Your task to perform on an android device: uninstall "Calculator" Image 0: 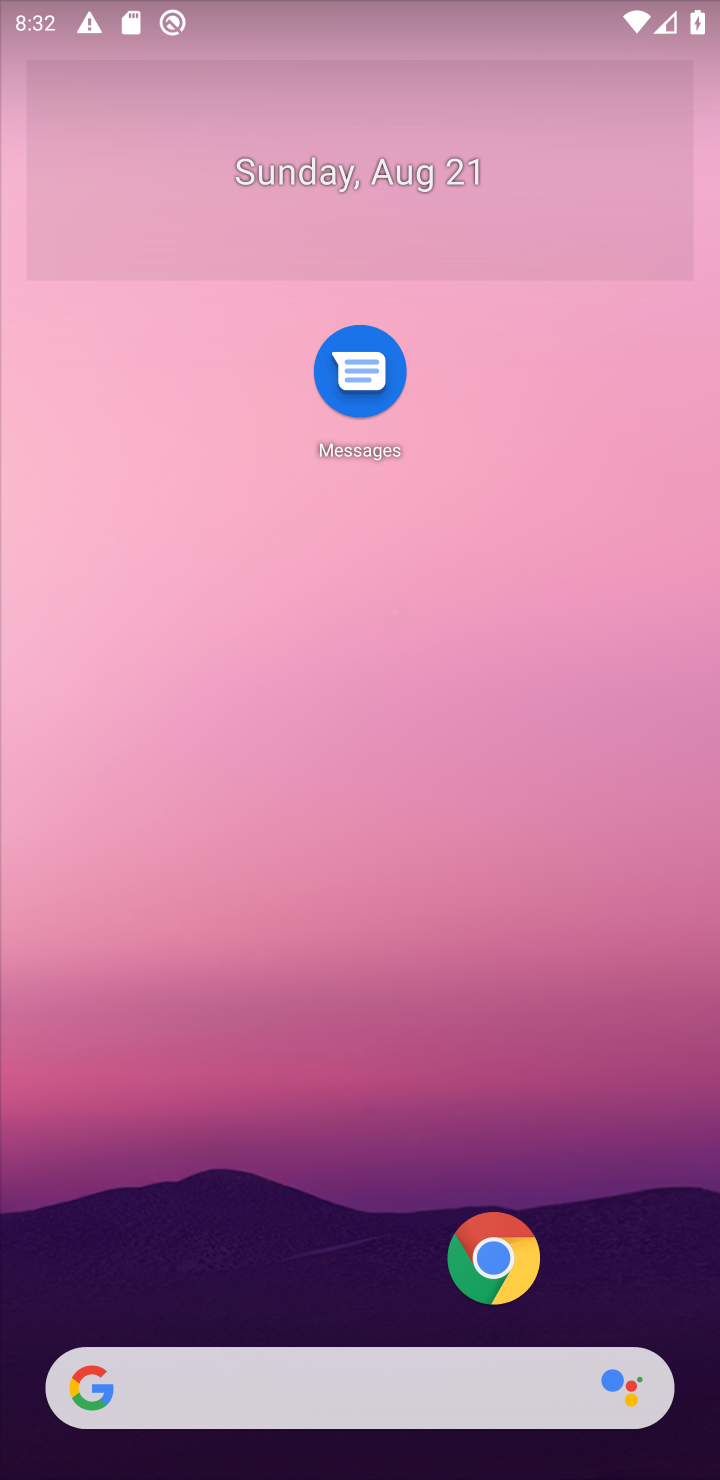
Step 0: drag from (484, 900) to (12, 769)
Your task to perform on an android device: uninstall "Calculator" Image 1: 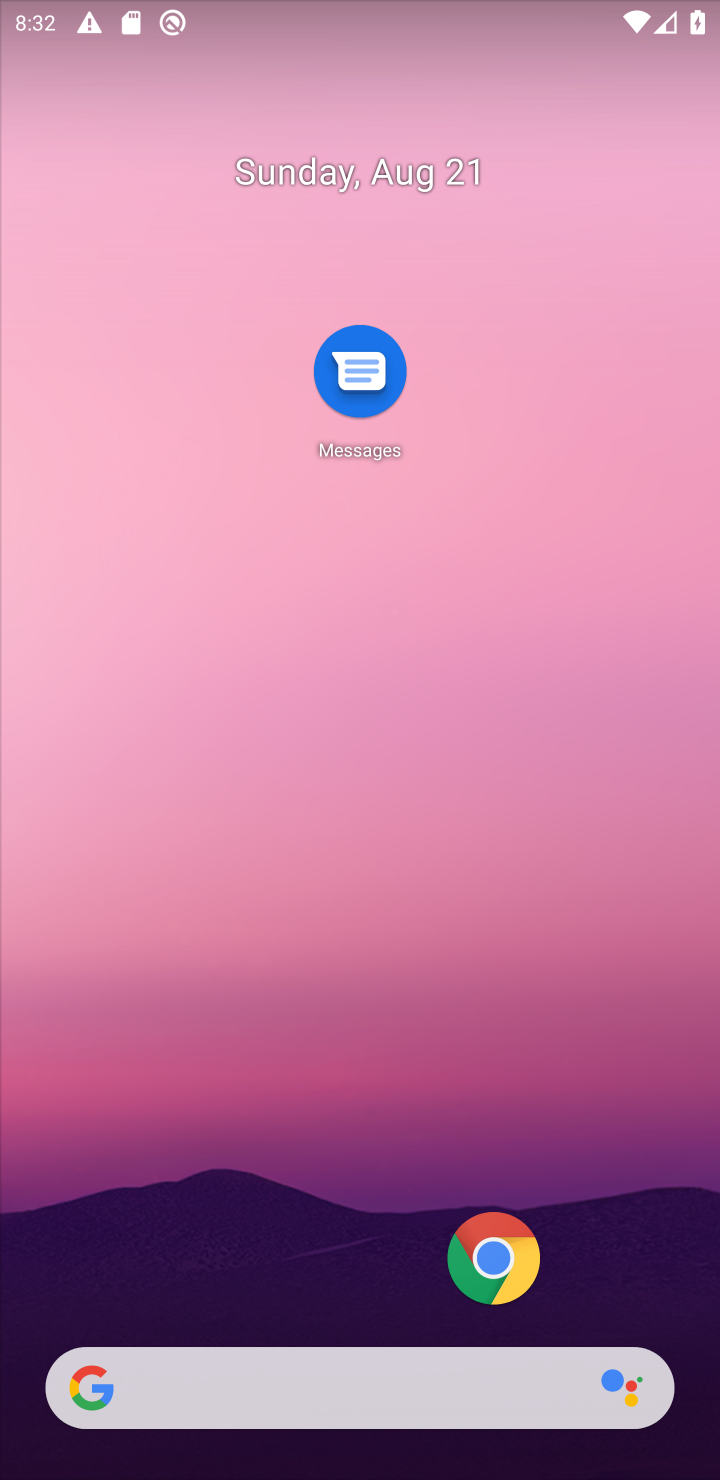
Step 1: drag from (294, 1067) to (413, 0)
Your task to perform on an android device: uninstall "Calculator" Image 2: 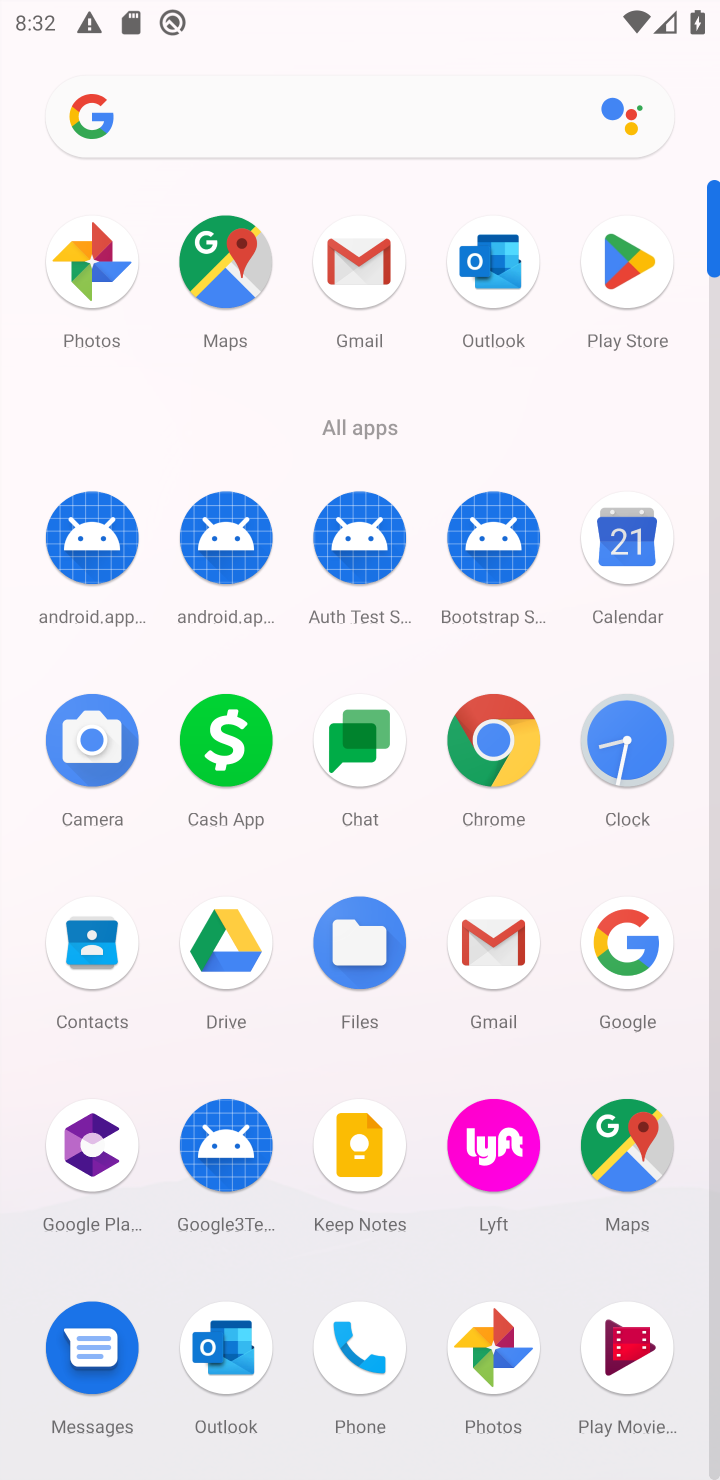
Step 2: click (626, 268)
Your task to perform on an android device: uninstall "Calculator" Image 3: 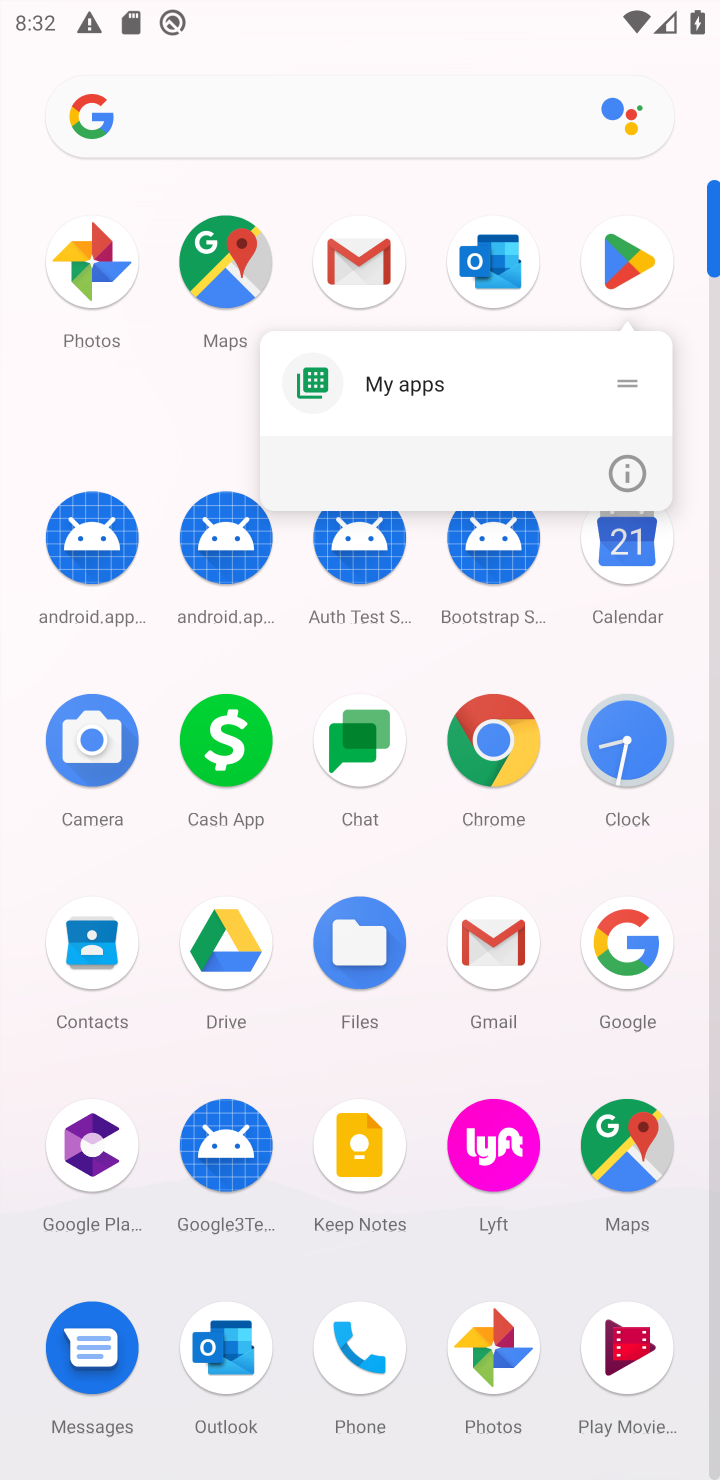
Step 3: click (626, 265)
Your task to perform on an android device: uninstall "Calculator" Image 4: 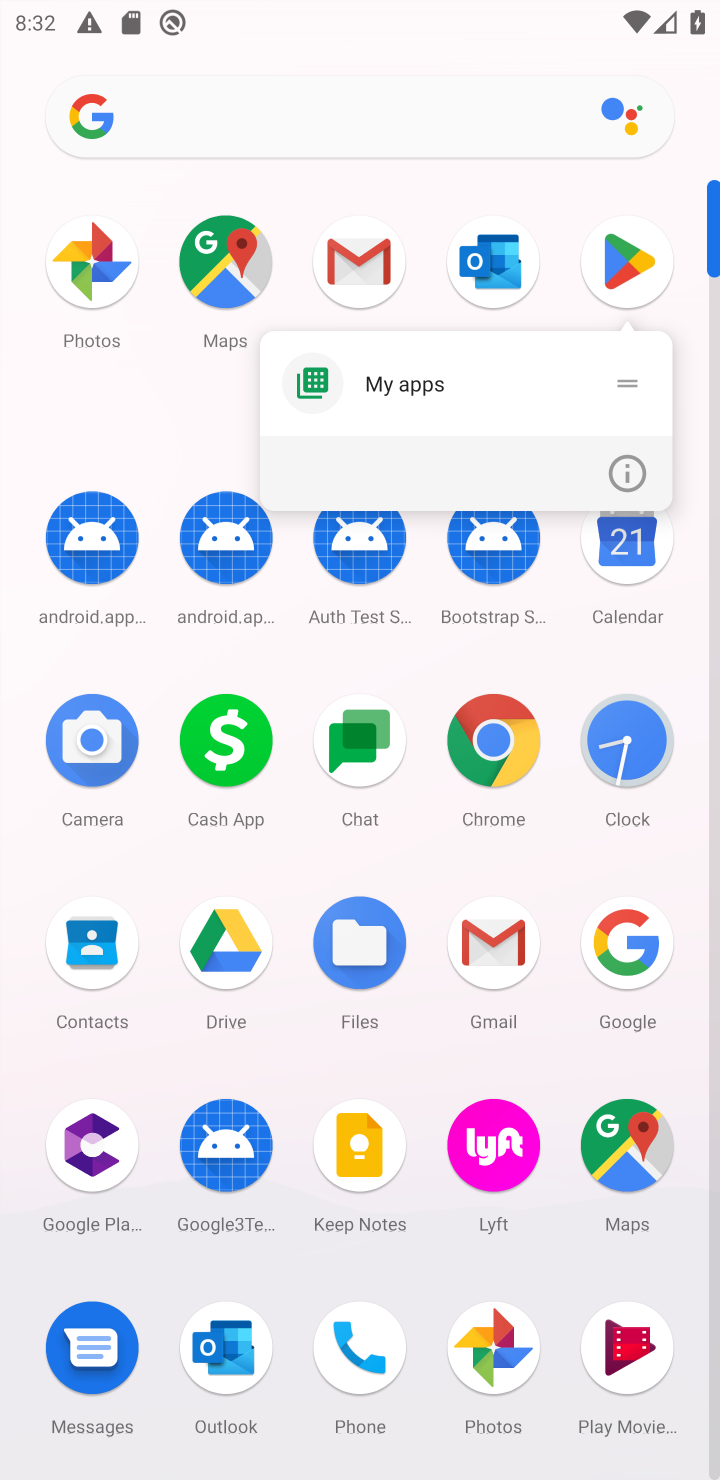
Step 4: click (626, 265)
Your task to perform on an android device: uninstall "Calculator" Image 5: 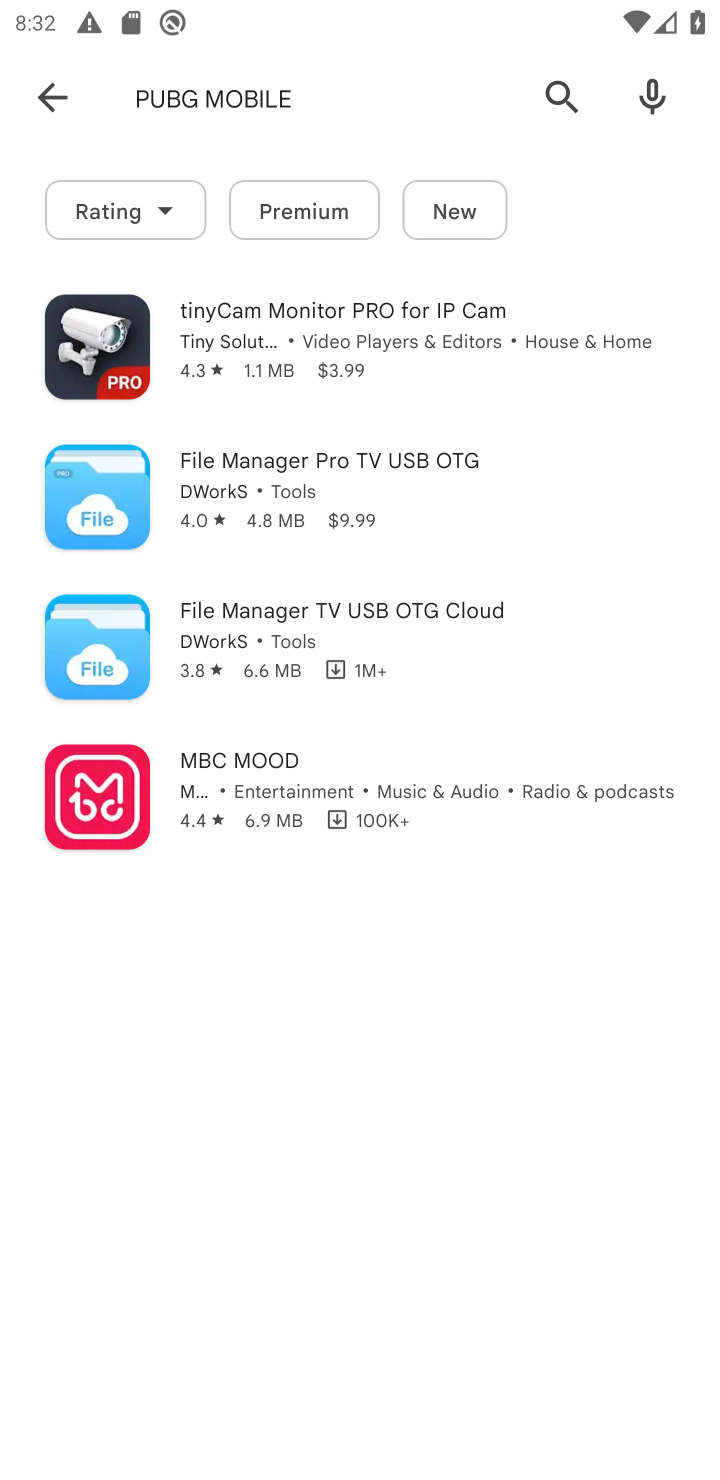
Step 5: press back button
Your task to perform on an android device: uninstall "Calculator" Image 6: 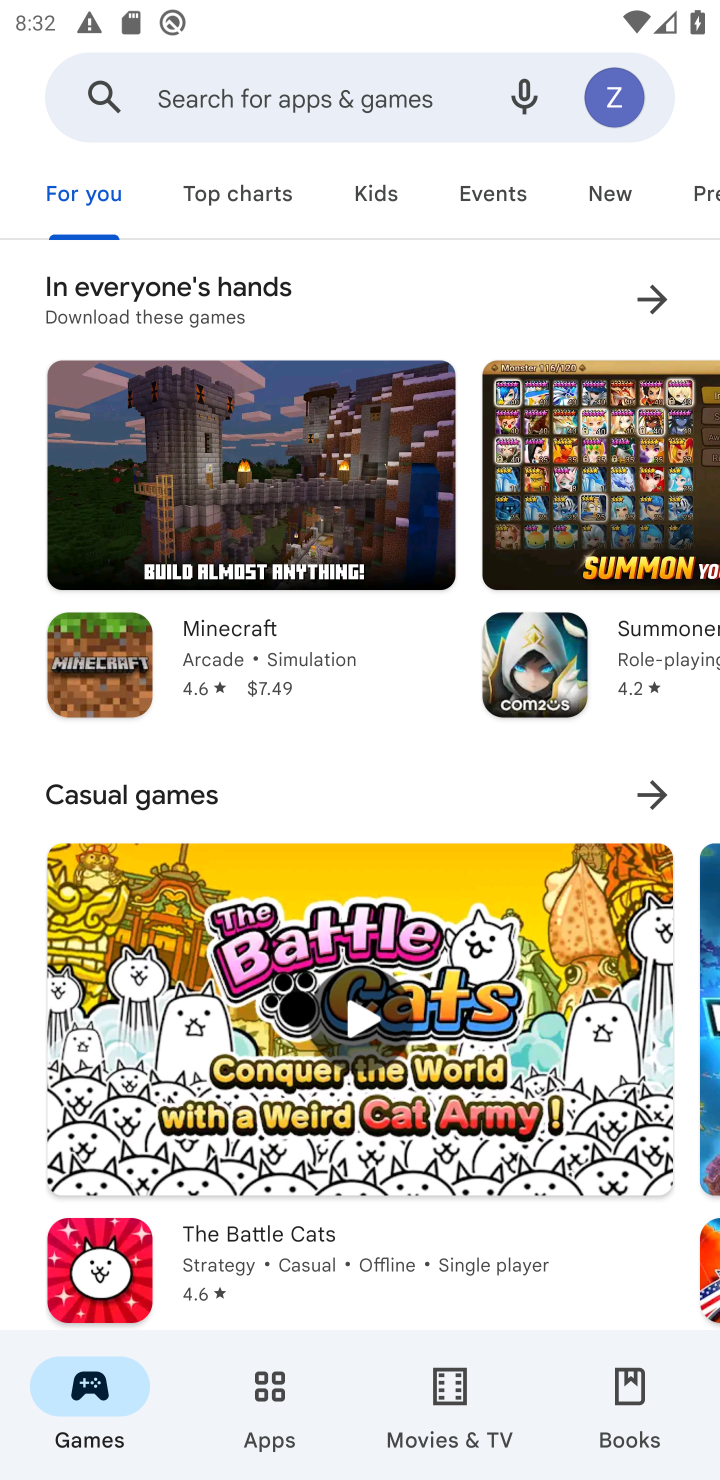
Step 6: click (342, 126)
Your task to perform on an android device: uninstall "Calculator" Image 7: 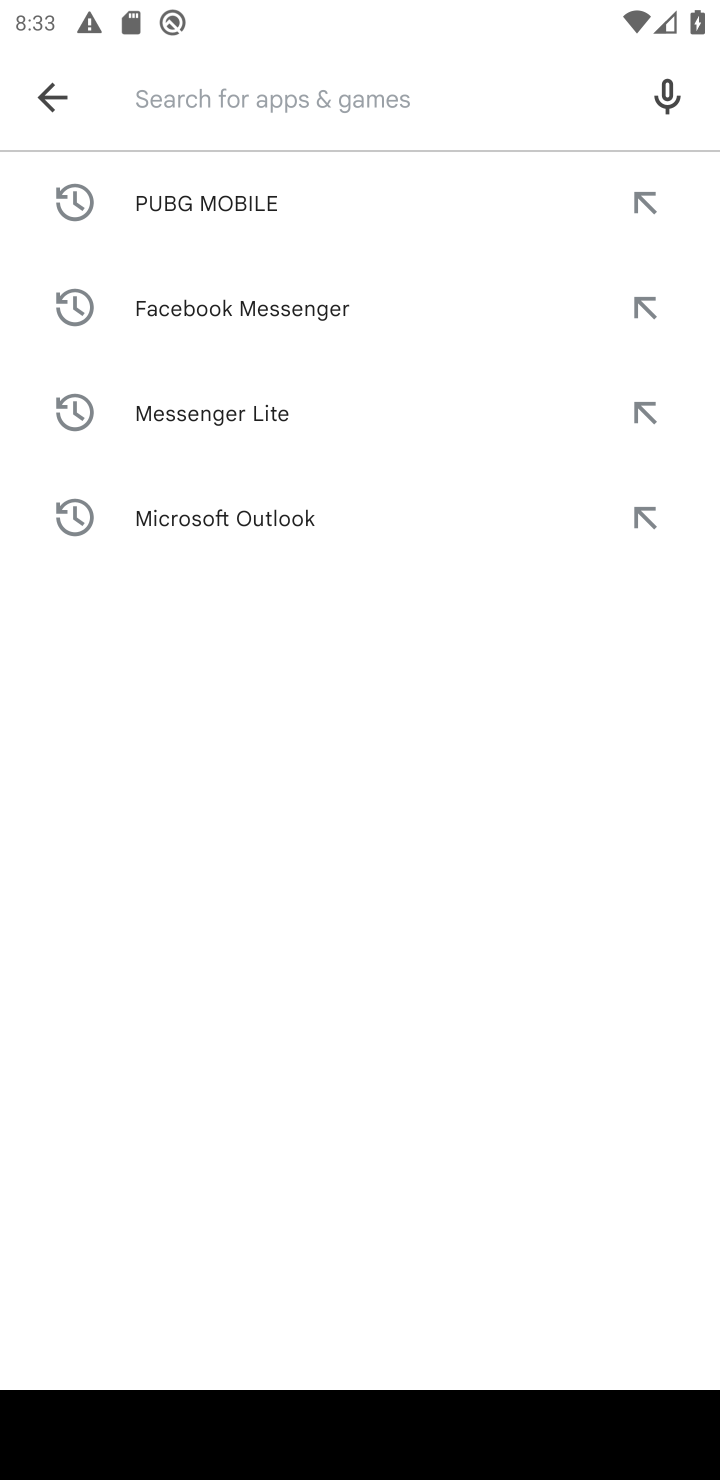
Step 7: type "Calculator"
Your task to perform on an android device: uninstall "Calculator" Image 8: 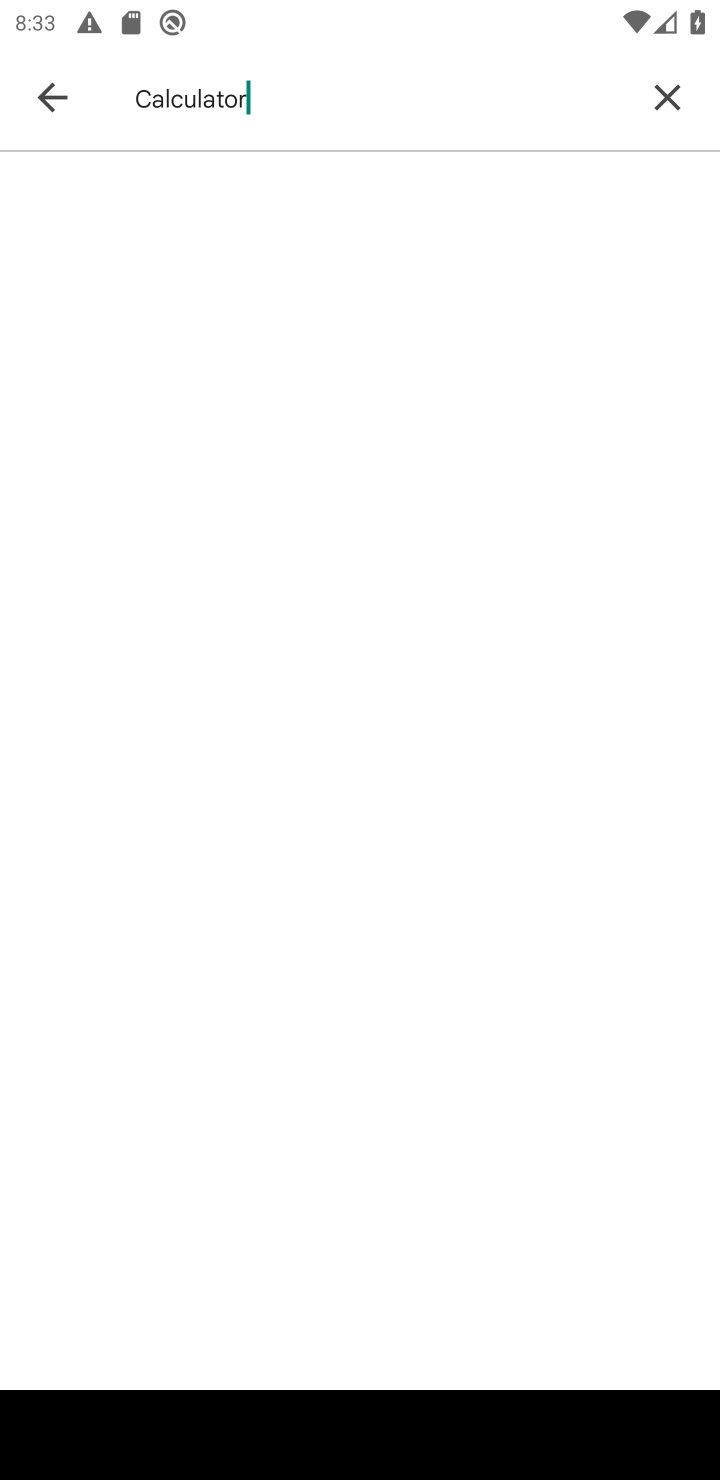
Step 8: press enter
Your task to perform on an android device: uninstall "Calculator" Image 9: 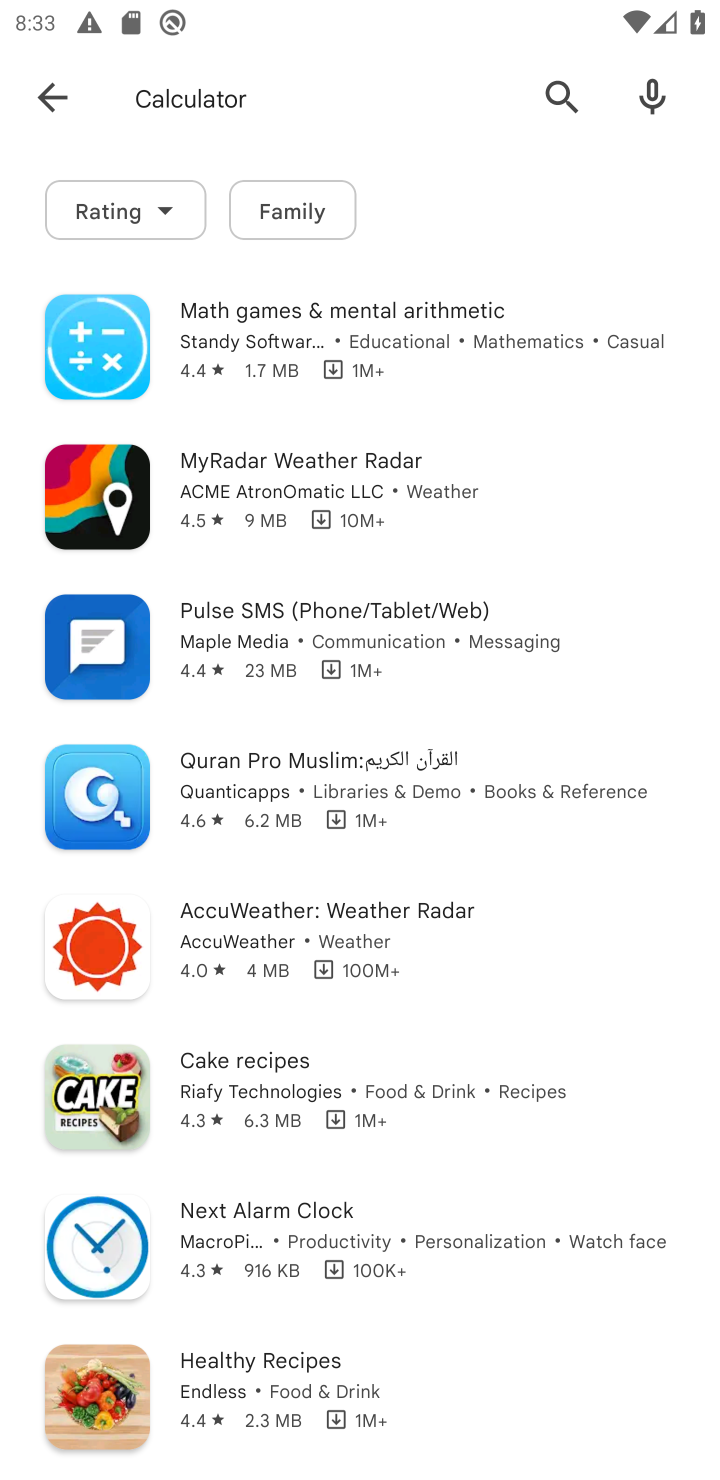
Step 9: task complete